Your task to perform on an android device: What's on my calendar tomorrow? Image 0: 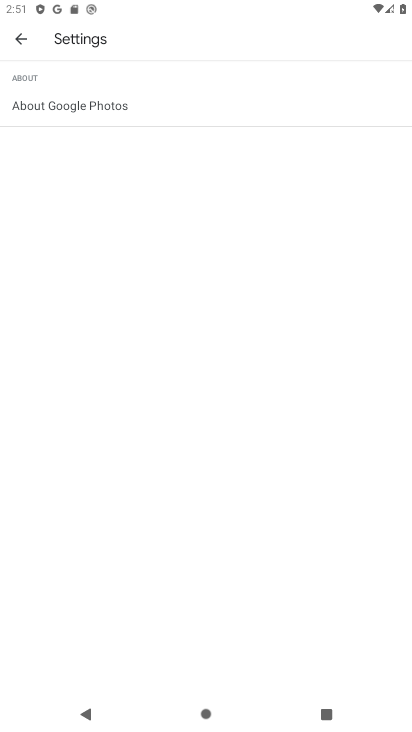
Step 0: press home button
Your task to perform on an android device: What's on my calendar tomorrow? Image 1: 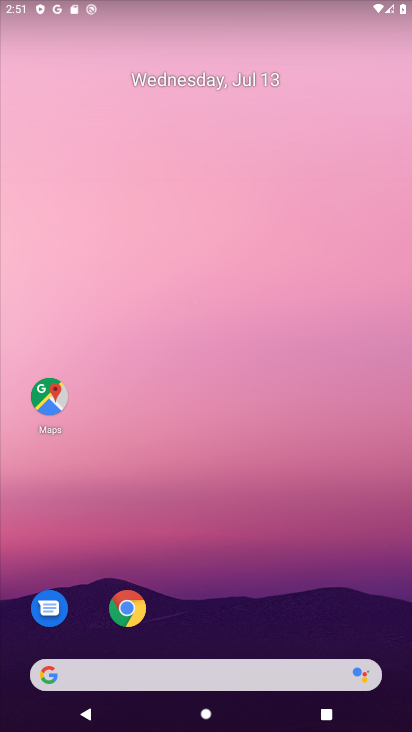
Step 1: click (217, 55)
Your task to perform on an android device: What's on my calendar tomorrow? Image 2: 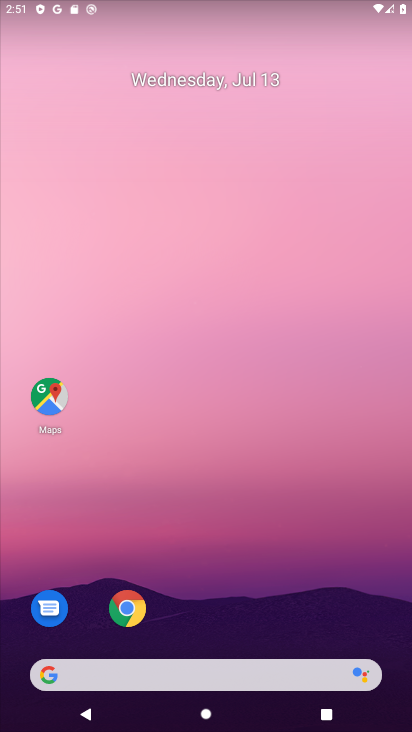
Step 2: click (208, 68)
Your task to perform on an android device: What's on my calendar tomorrow? Image 3: 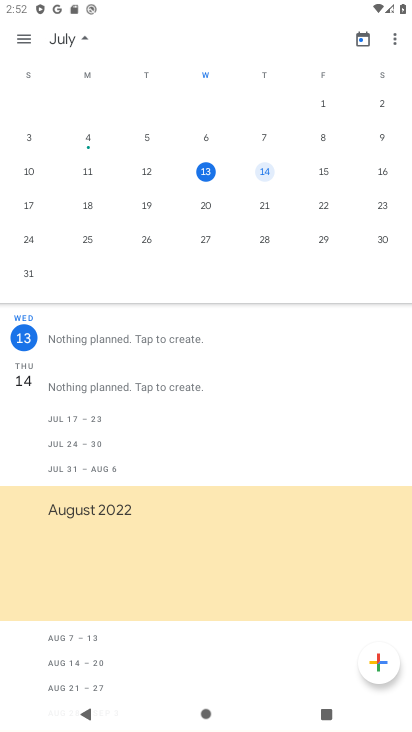
Step 3: click (261, 169)
Your task to perform on an android device: What's on my calendar tomorrow? Image 4: 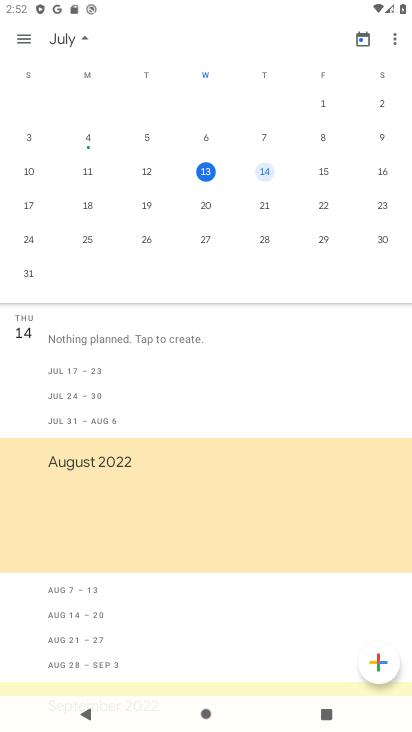
Step 4: task complete